Your task to perform on an android device: uninstall "Move to iOS" Image 0: 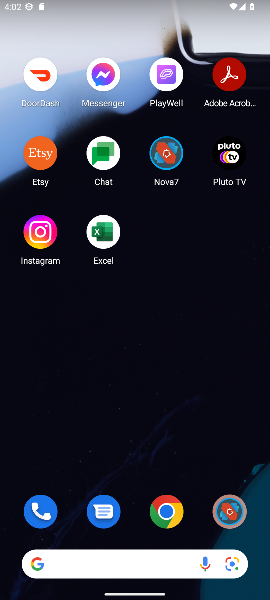
Step 0: drag from (41, 567) to (141, 52)
Your task to perform on an android device: uninstall "Move to iOS" Image 1: 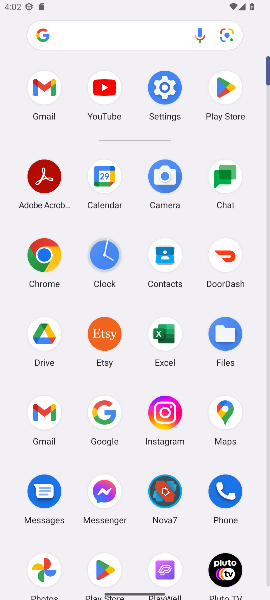
Step 1: drag from (166, 523) to (168, 299)
Your task to perform on an android device: uninstall "Move to iOS" Image 2: 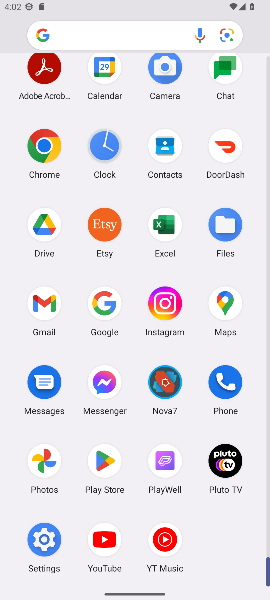
Step 2: click (105, 472)
Your task to perform on an android device: uninstall "Move to iOS" Image 3: 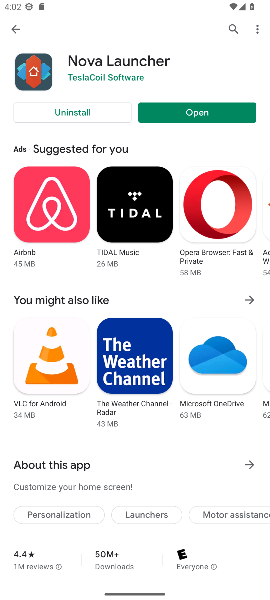
Step 3: click (14, 28)
Your task to perform on an android device: uninstall "Move to iOS" Image 4: 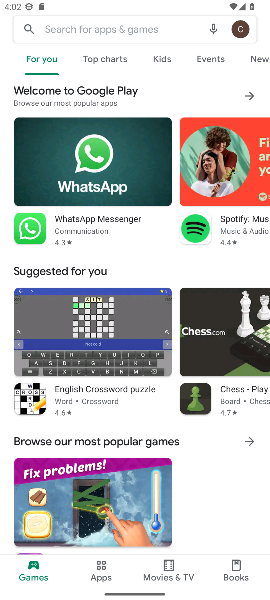
Step 4: click (49, 32)
Your task to perform on an android device: uninstall "Move to iOS" Image 5: 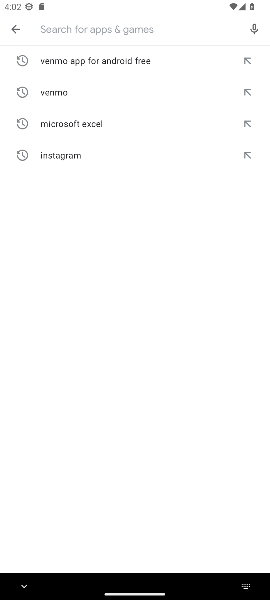
Step 5: type "Move to iOS"
Your task to perform on an android device: uninstall "Move to iOS" Image 6: 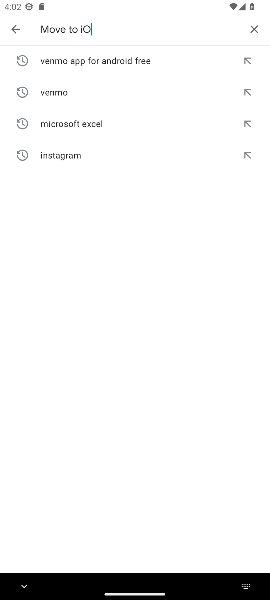
Step 6: type ""
Your task to perform on an android device: uninstall "Move to iOS" Image 7: 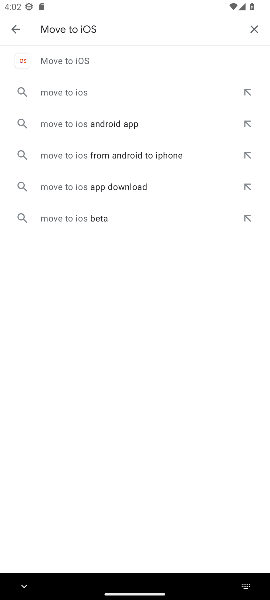
Step 7: click (52, 59)
Your task to perform on an android device: uninstall "Move to iOS" Image 8: 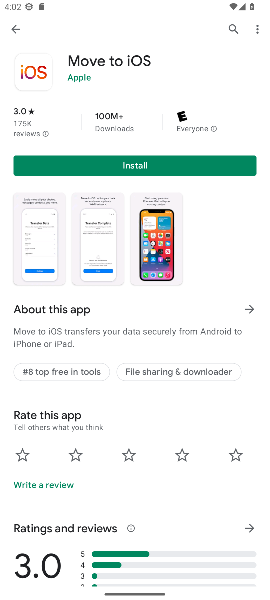
Step 8: task complete